Your task to perform on an android device: Check the weather Image 0: 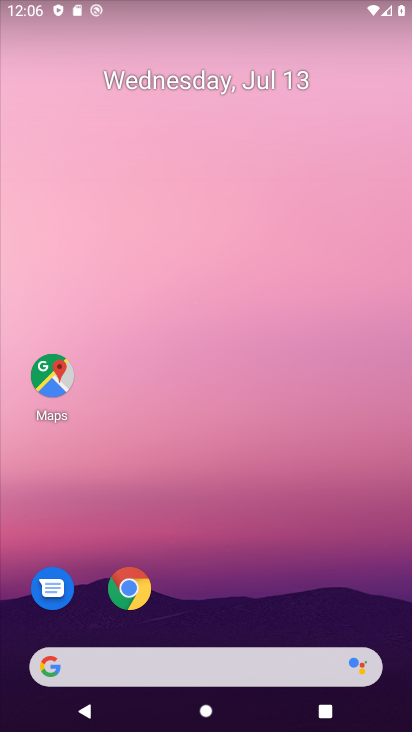
Step 0: drag from (208, 561) to (191, 235)
Your task to perform on an android device: Check the weather Image 1: 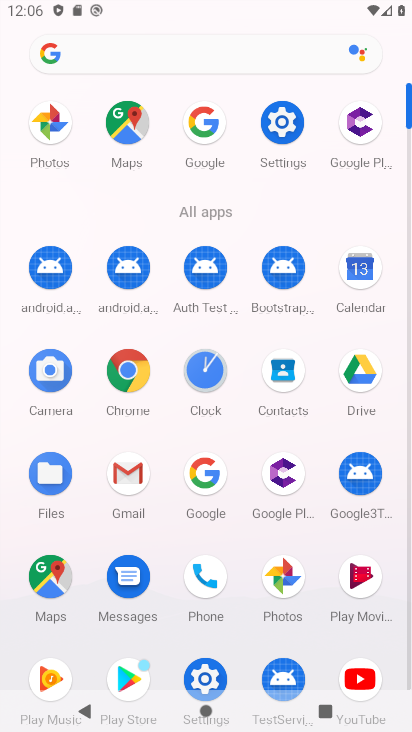
Step 1: click (203, 476)
Your task to perform on an android device: Check the weather Image 2: 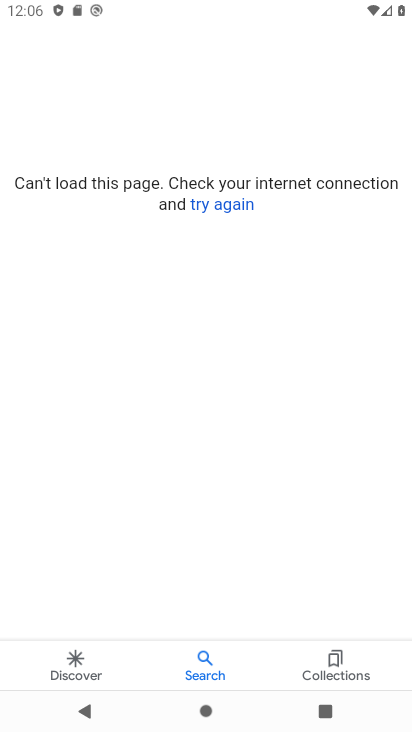
Step 2: click (228, 204)
Your task to perform on an android device: Check the weather Image 3: 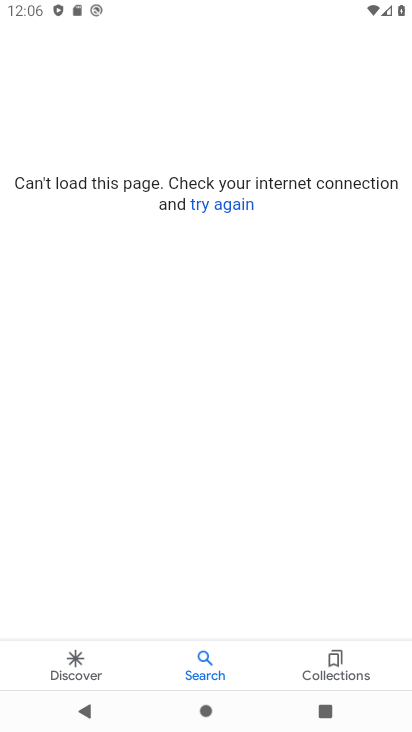
Step 3: click (217, 200)
Your task to perform on an android device: Check the weather Image 4: 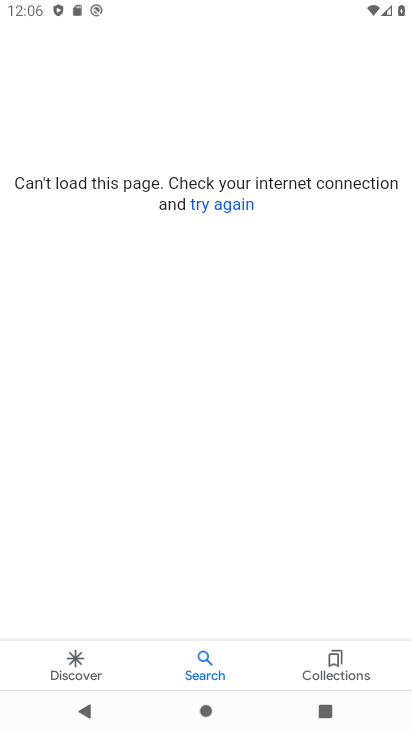
Step 4: click (204, 199)
Your task to perform on an android device: Check the weather Image 5: 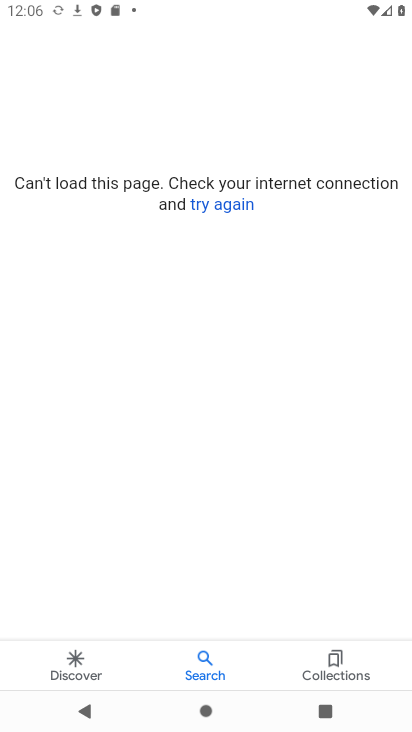
Step 5: task complete